Your task to perform on an android device: Show me recent news Image 0: 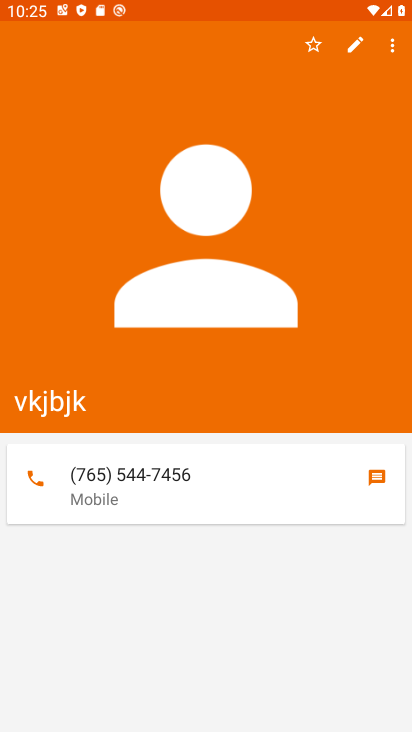
Step 0: press home button
Your task to perform on an android device: Show me recent news Image 1: 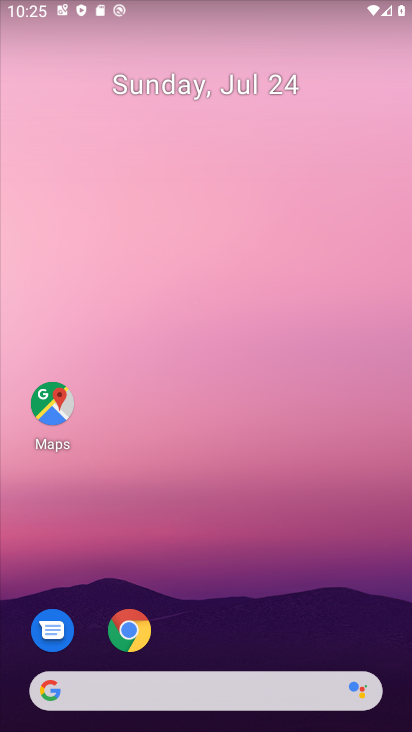
Step 1: drag from (206, 623) to (203, 125)
Your task to perform on an android device: Show me recent news Image 2: 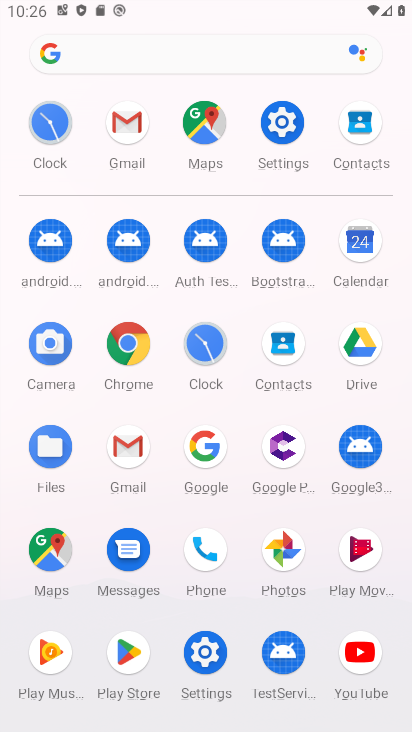
Step 2: click (210, 454)
Your task to perform on an android device: Show me recent news Image 3: 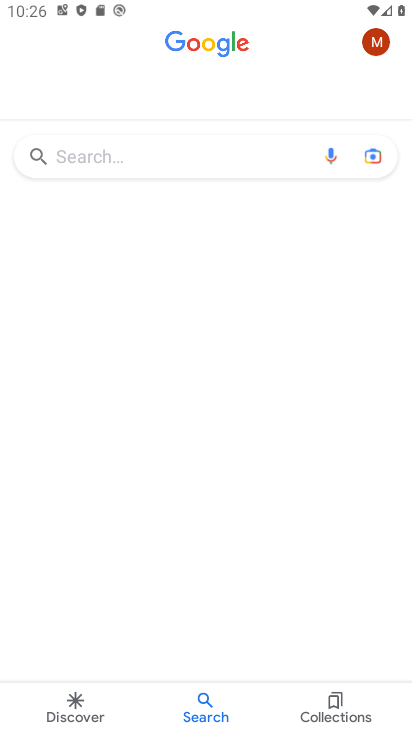
Step 3: click (125, 158)
Your task to perform on an android device: Show me recent news Image 4: 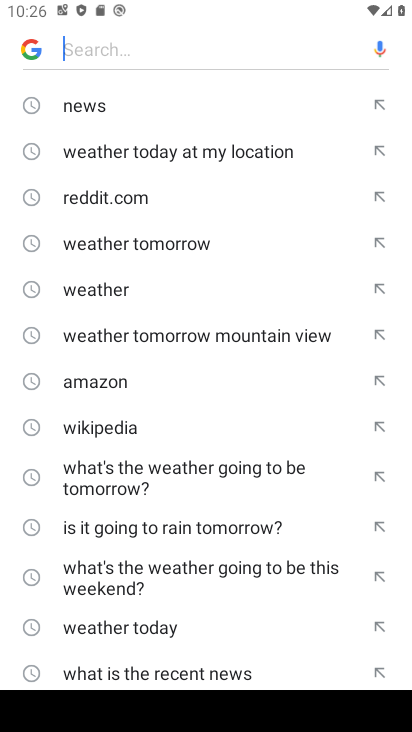
Step 4: click (105, 93)
Your task to perform on an android device: Show me recent news Image 5: 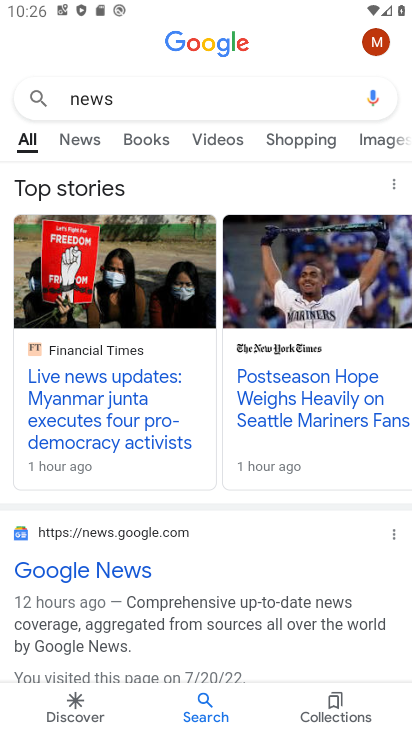
Step 5: click (97, 146)
Your task to perform on an android device: Show me recent news Image 6: 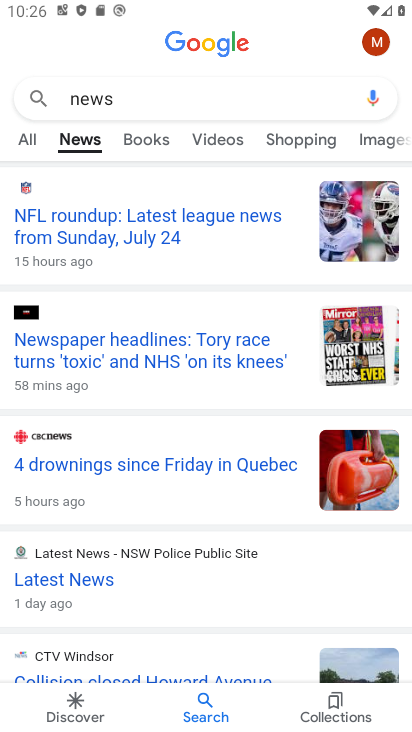
Step 6: task complete